Your task to perform on an android device: What's a good restaurant in Boston? Image 0: 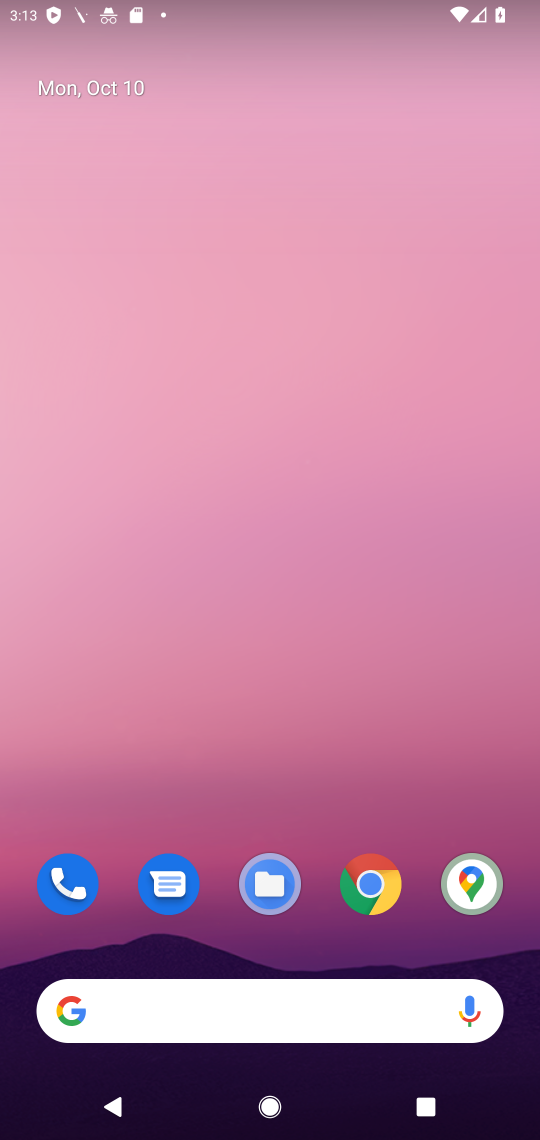
Step 0: click (290, 1005)
Your task to perform on an android device: What's a good restaurant in Boston? Image 1: 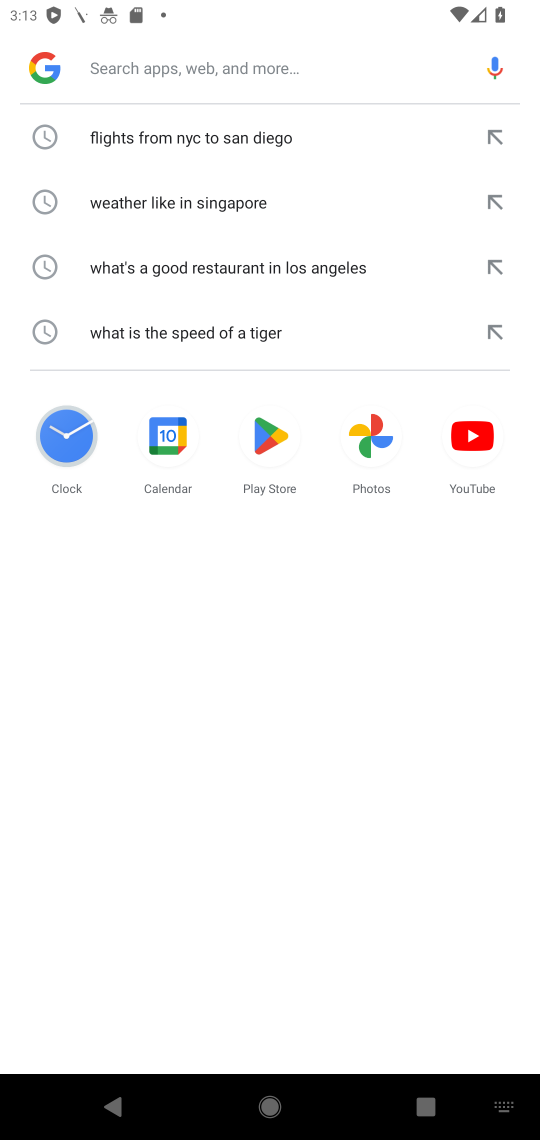
Step 1: type "good restaurant in Boston?"
Your task to perform on an android device: What's a good restaurant in Boston? Image 2: 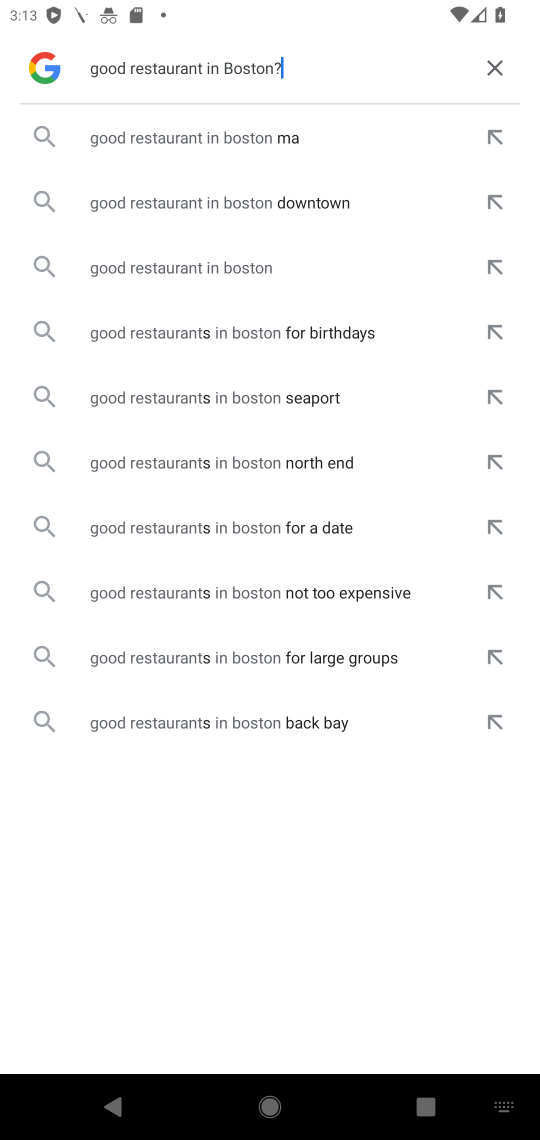
Step 2: click (194, 138)
Your task to perform on an android device: What's a good restaurant in Boston? Image 3: 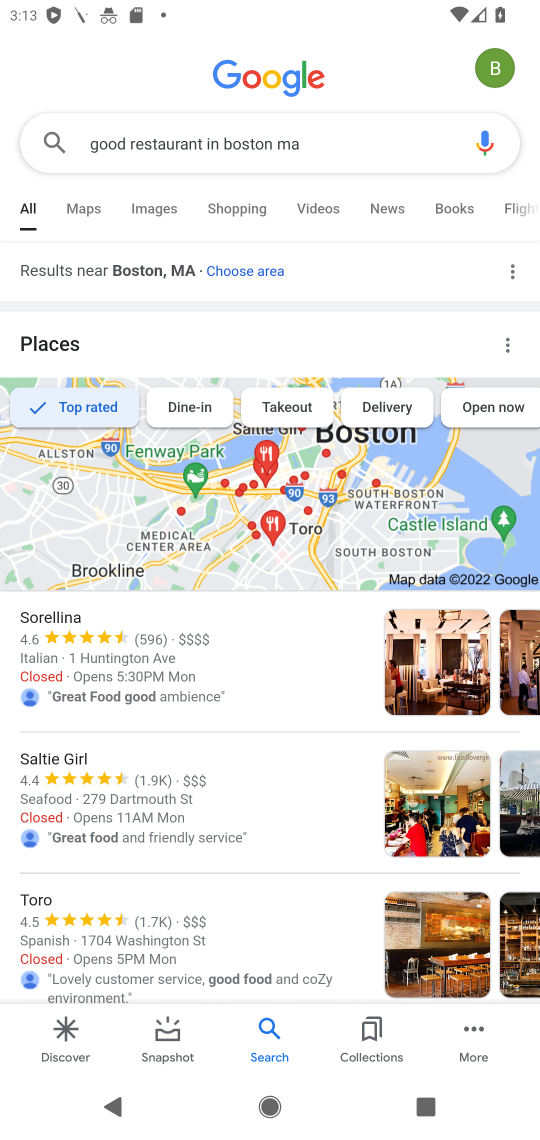
Step 3: task complete